Your task to perform on an android device: What is the recent news? Image 0: 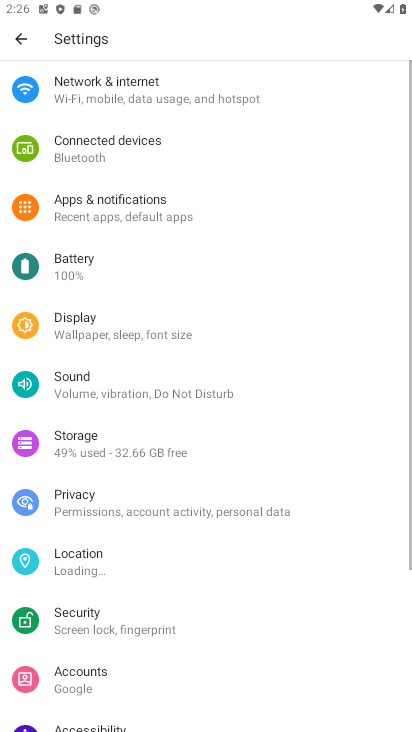
Step 0: press home button
Your task to perform on an android device: What is the recent news? Image 1: 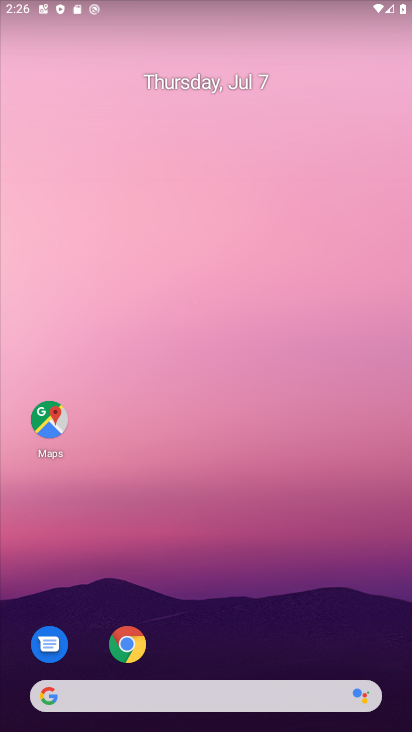
Step 1: click (49, 697)
Your task to perform on an android device: What is the recent news? Image 2: 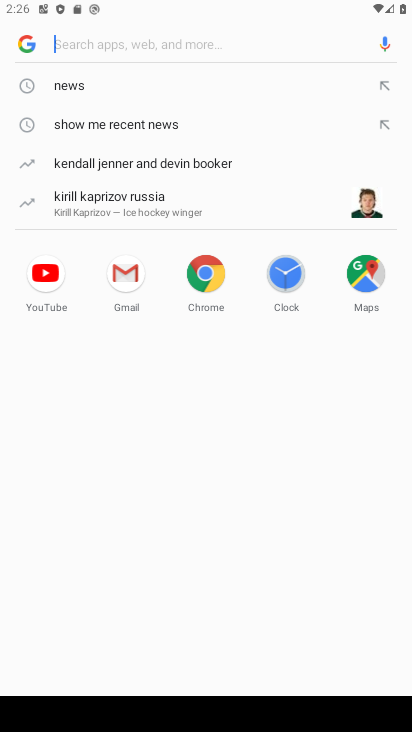
Step 2: type "recent news"
Your task to perform on an android device: What is the recent news? Image 3: 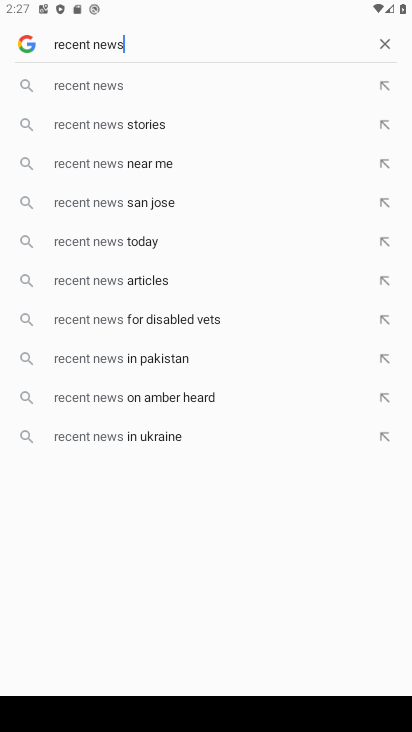
Step 3: click (87, 91)
Your task to perform on an android device: What is the recent news? Image 4: 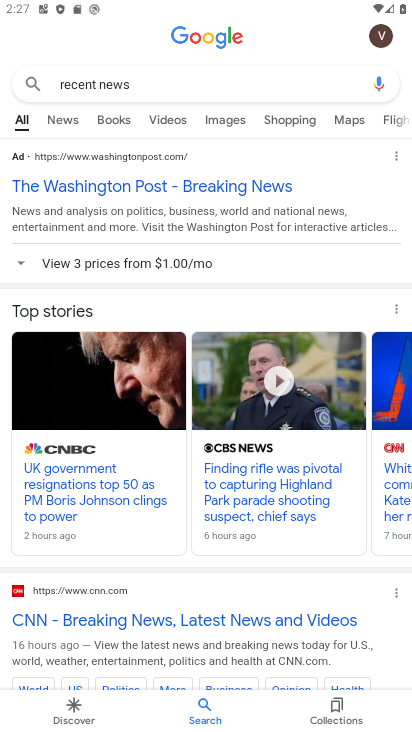
Step 4: task complete